Your task to perform on an android device: Show the shopping cart on newegg.com. Add "dell xps" to the cart on newegg.com Image 0: 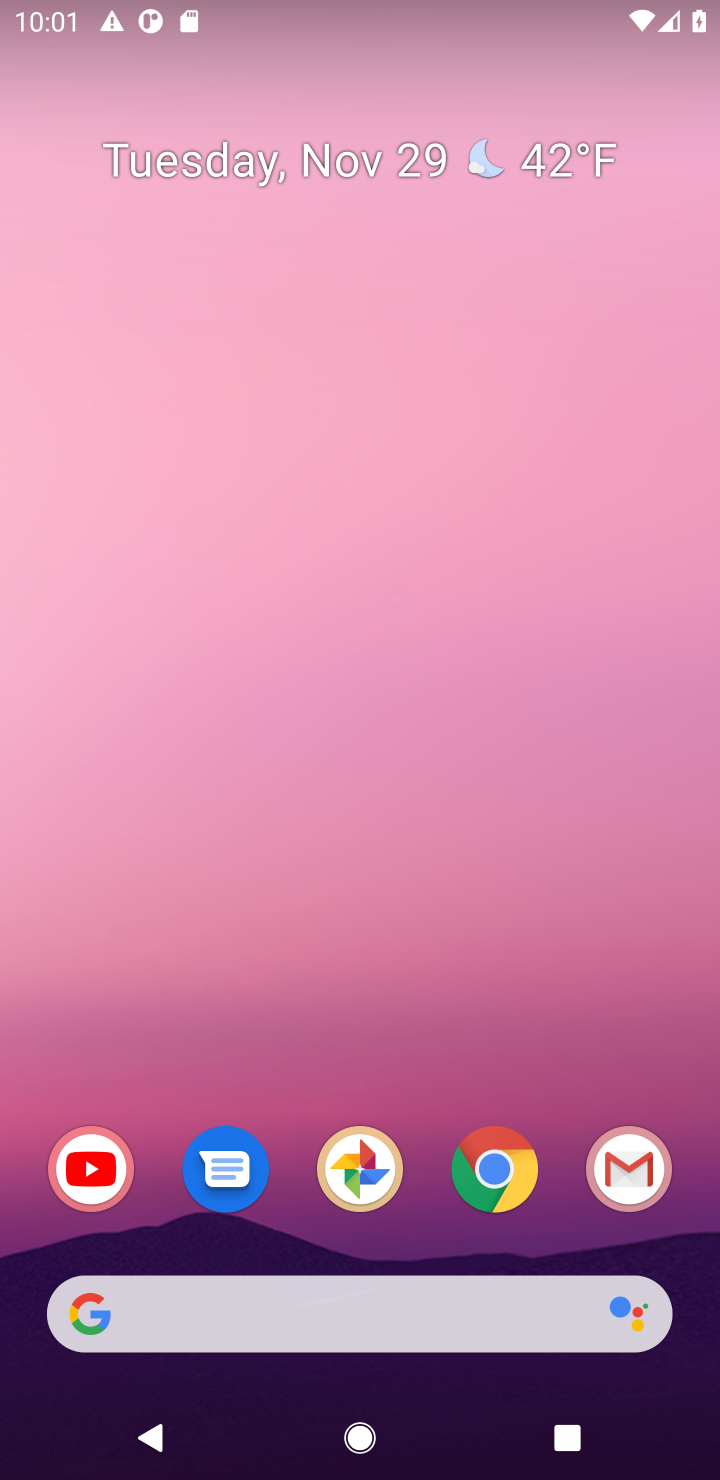
Step 0: click (398, 1340)
Your task to perform on an android device: Show the shopping cart on newegg.com. Add "dell xps" to the cart on newegg.com Image 1: 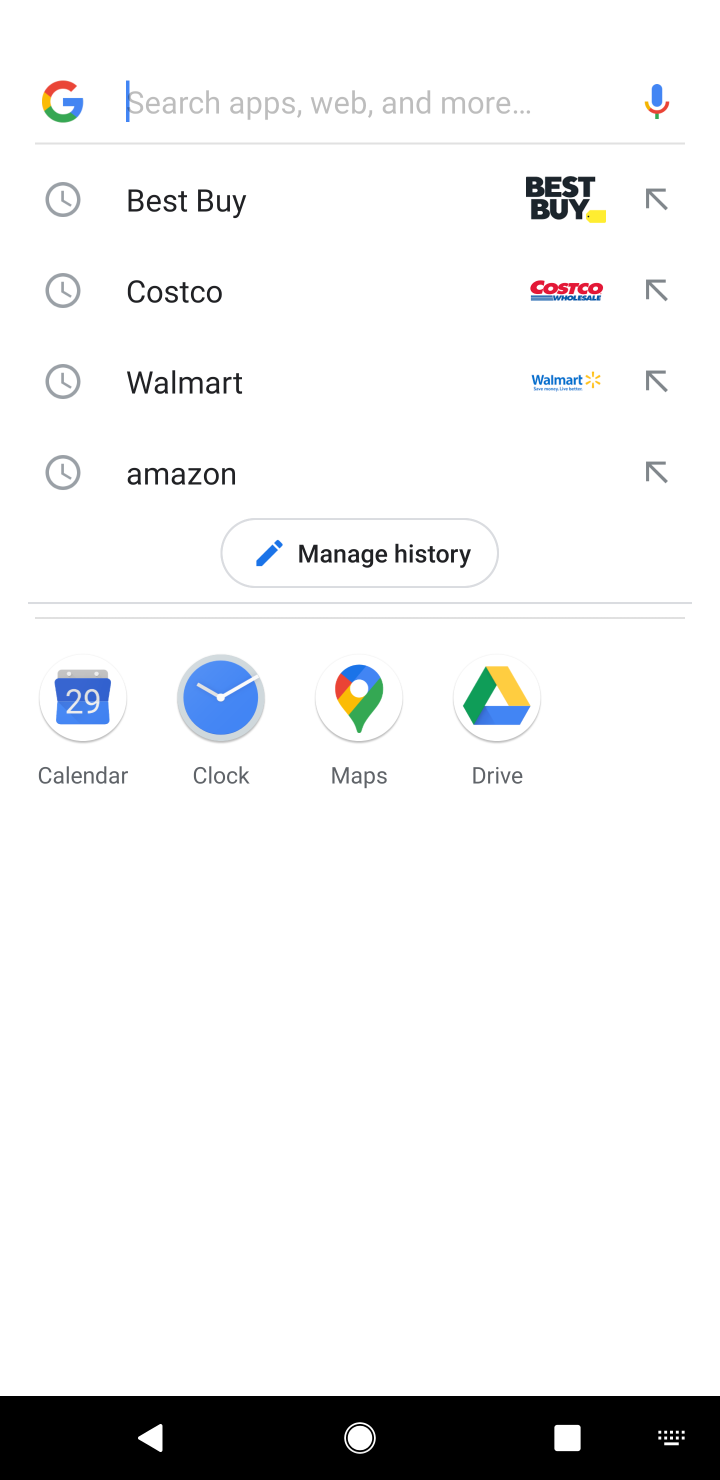
Step 1: type "newegg"
Your task to perform on an android device: Show the shopping cart on newegg.com. Add "dell xps" to the cart on newegg.com Image 2: 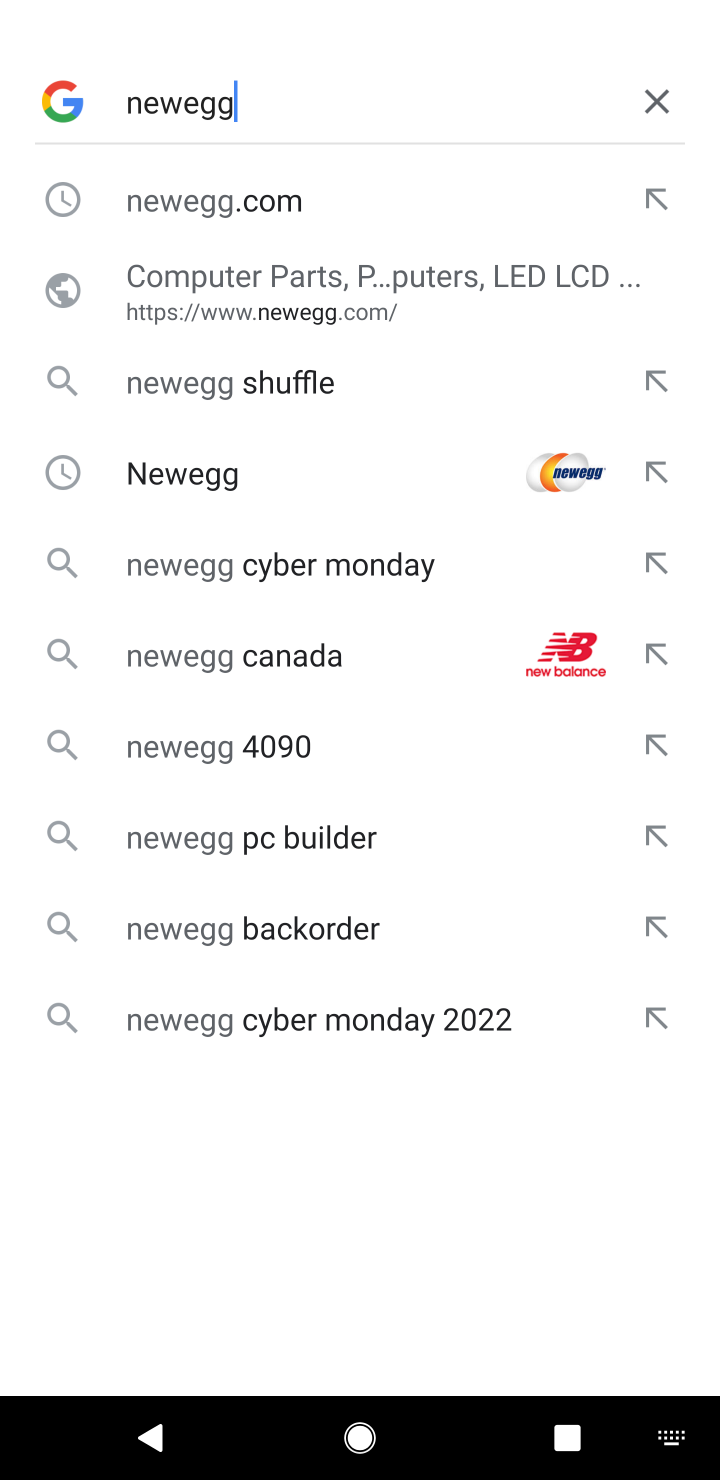
Step 2: click (198, 217)
Your task to perform on an android device: Show the shopping cart on newegg.com. Add "dell xps" to the cart on newegg.com Image 3: 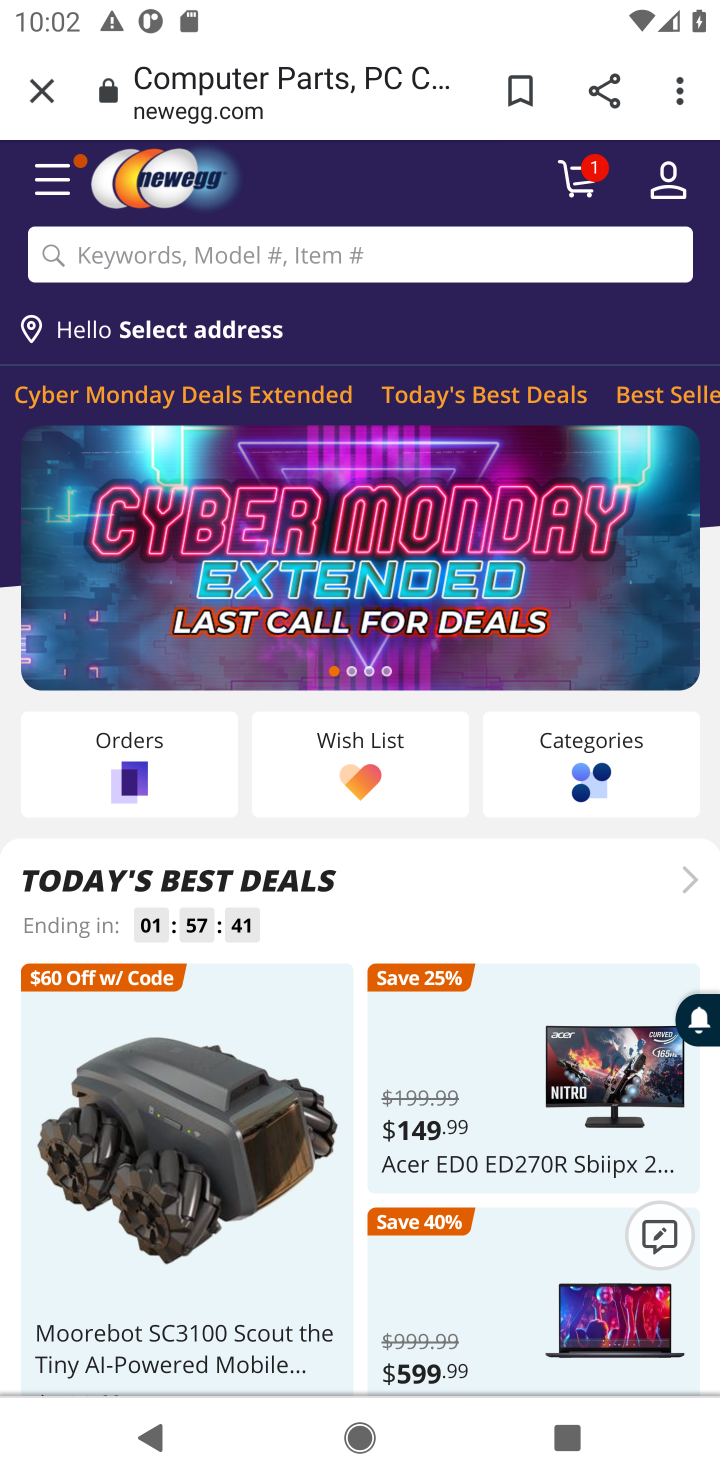
Step 3: task complete